Your task to perform on an android device: open app "Adobe Acrobat Reader" (install if not already installed) Image 0: 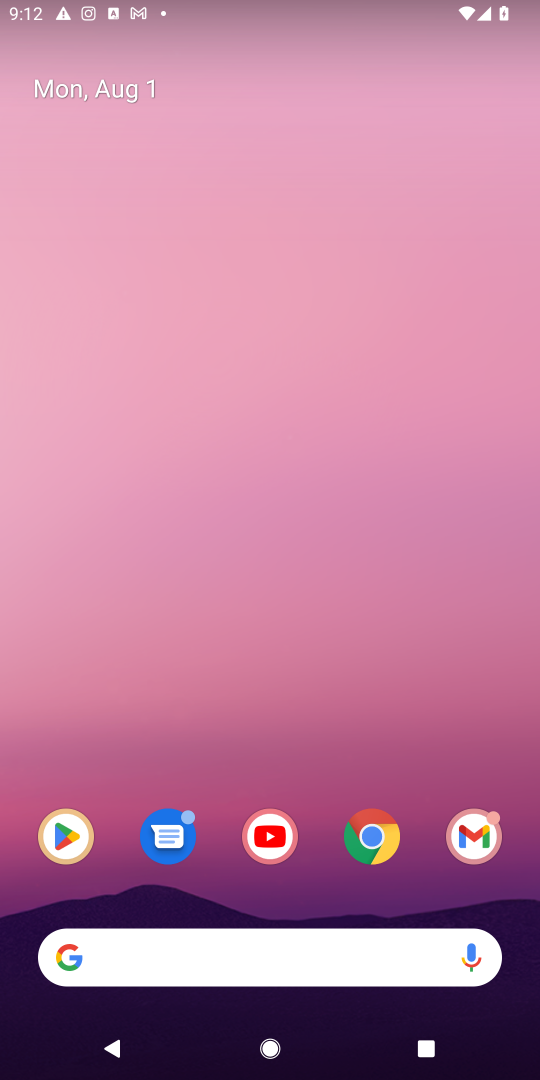
Step 0: press home button
Your task to perform on an android device: open app "Adobe Acrobat Reader" (install if not already installed) Image 1: 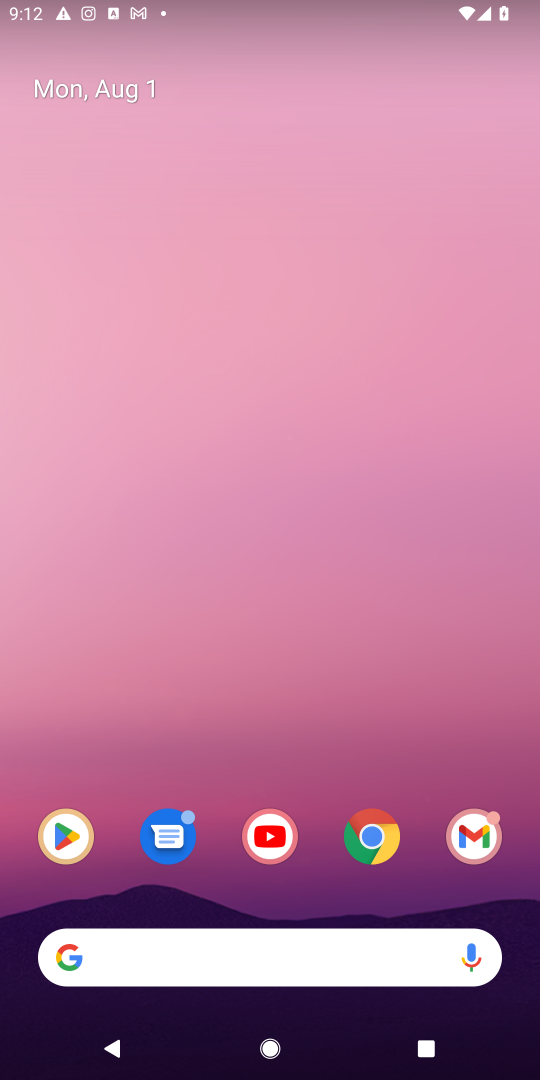
Step 1: click (62, 832)
Your task to perform on an android device: open app "Adobe Acrobat Reader" (install if not already installed) Image 2: 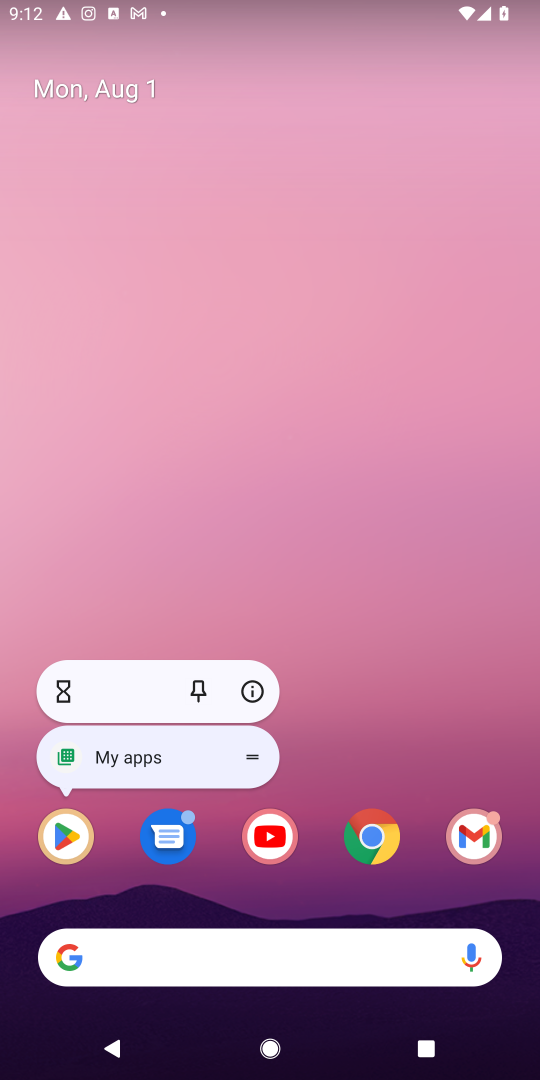
Step 2: click (62, 833)
Your task to perform on an android device: open app "Adobe Acrobat Reader" (install if not already installed) Image 3: 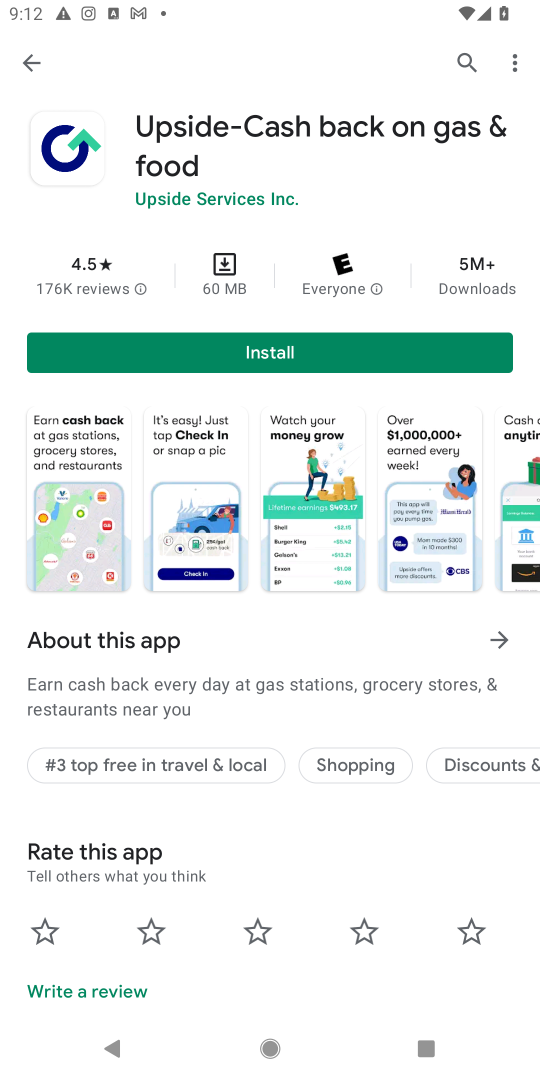
Step 3: click (466, 59)
Your task to perform on an android device: open app "Adobe Acrobat Reader" (install if not already installed) Image 4: 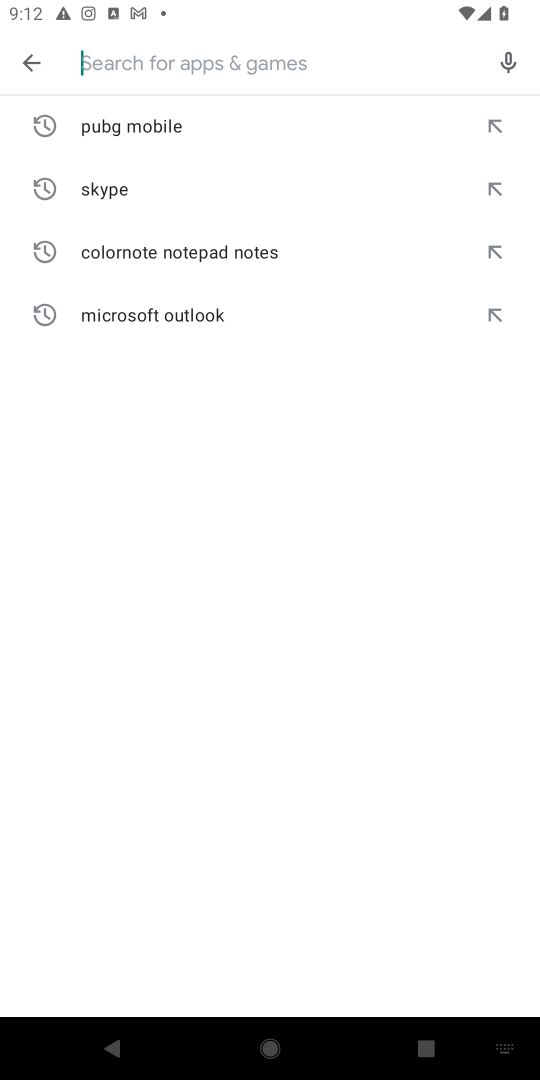
Step 4: type "Adobe Acrobat Reader"
Your task to perform on an android device: open app "Adobe Acrobat Reader" (install if not already installed) Image 5: 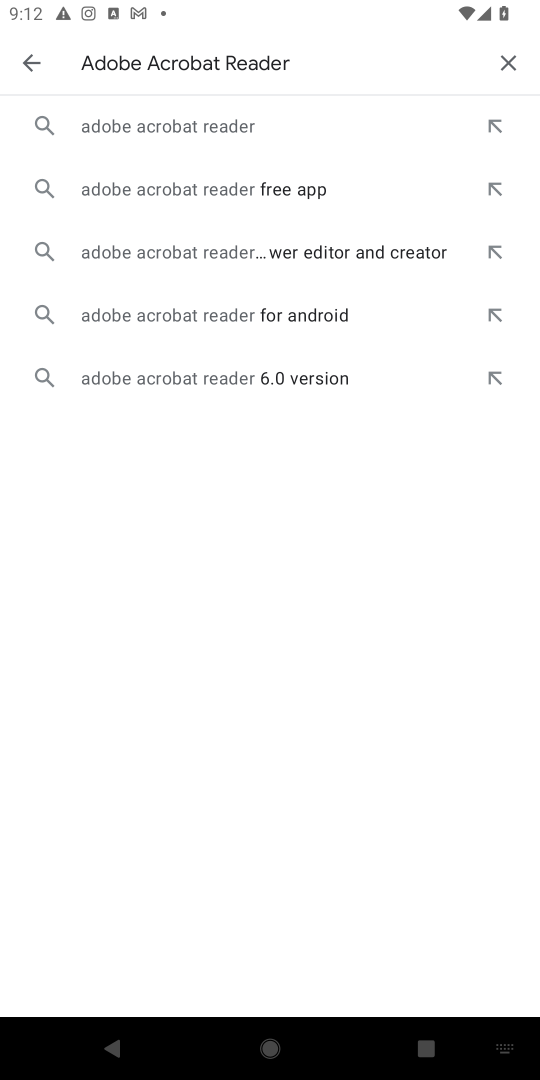
Step 5: click (213, 130)
Your task to perform on an android device: open app "Adobe Acrobat Reader" (install if not already installed) Image 6: 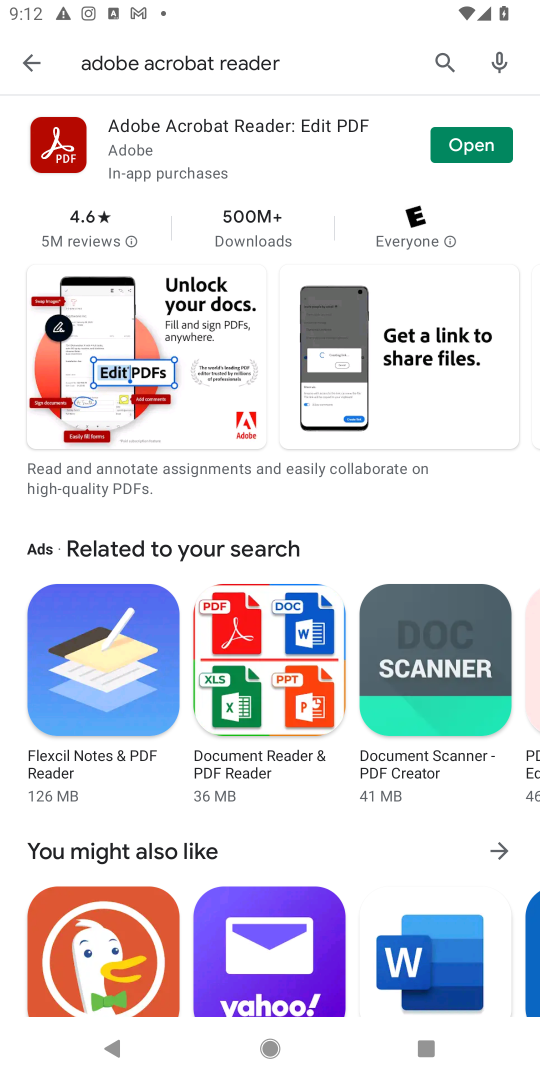
Step 6: click (493, 143)
Your task to perform on an android device: open app "Adobe Acrobat Reader" (install if not already installed) Image 7: 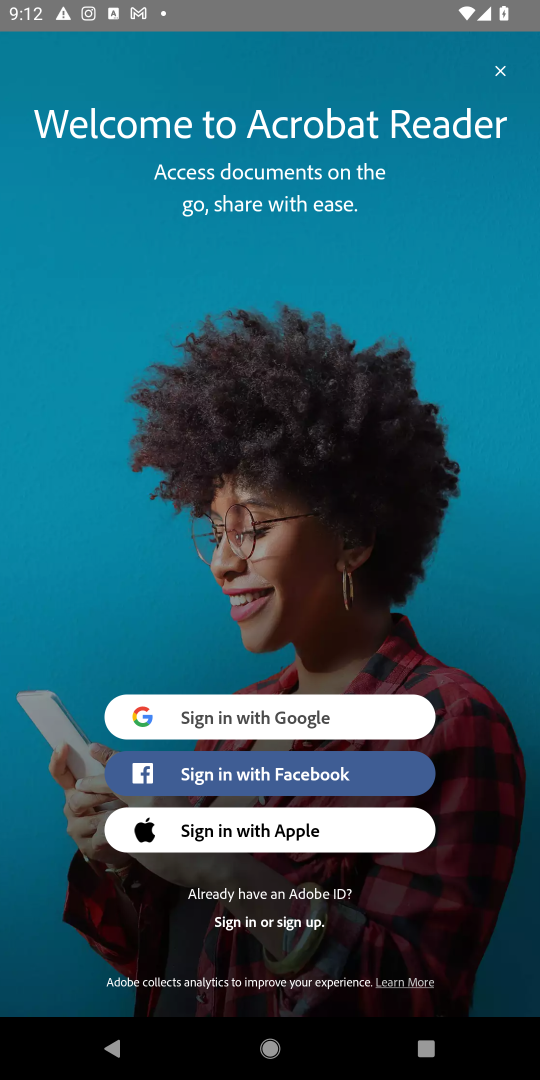
Step 7: task complete